Your task to perform on an android device: Add "lenovo thinkpad" to the cart on target Image 0: 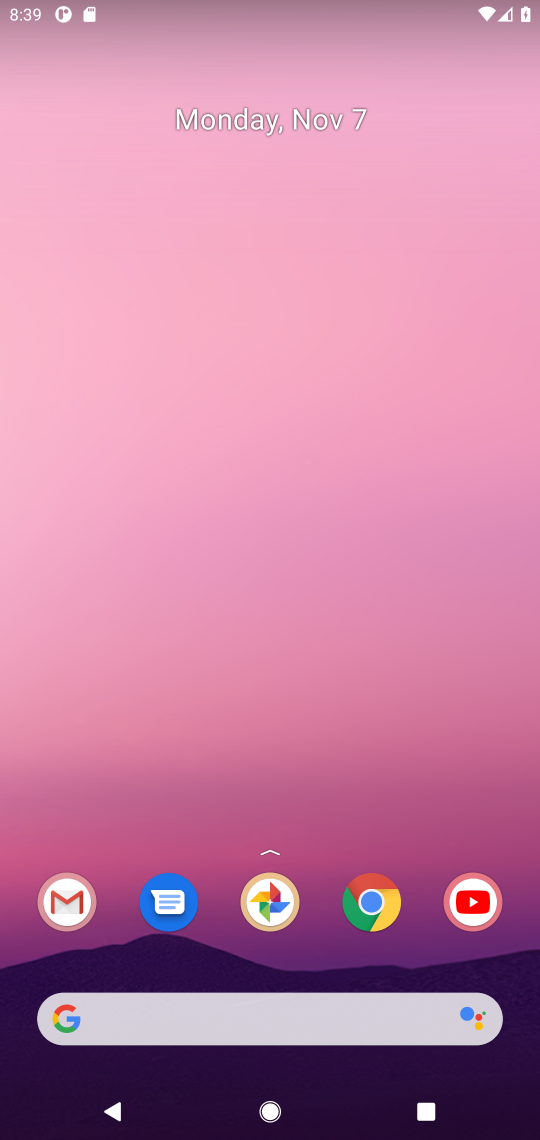
Step 0: click (375, 918)
Your task to perform on an android device: Add "lenovo thinkpad" to the cart on target Image 1: 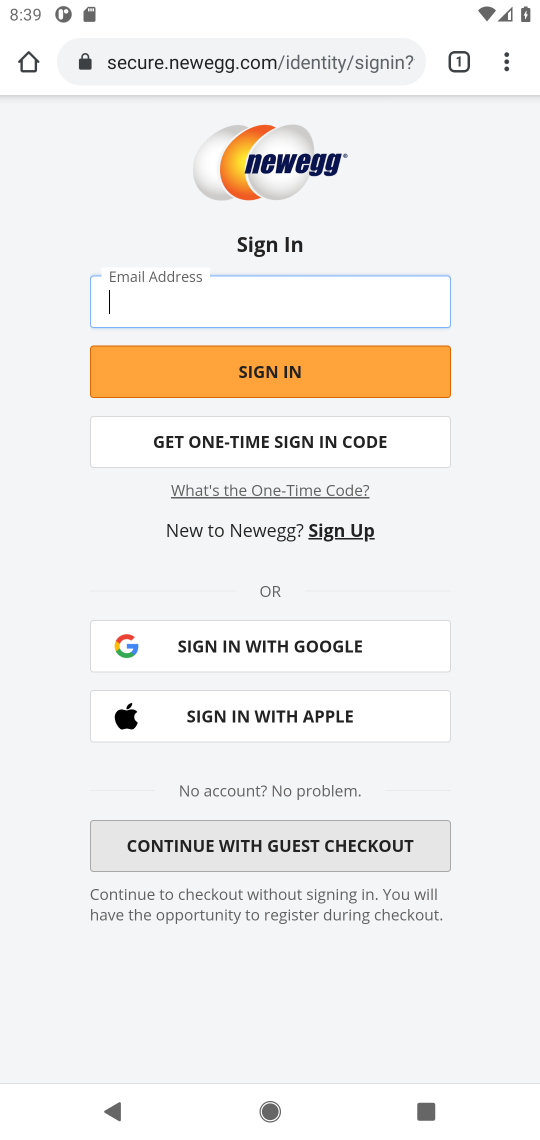
Step 1: click (201, 62)
Your task to perform on an android device: Add "lenovo thinkpad" to the cart on target Image 2: 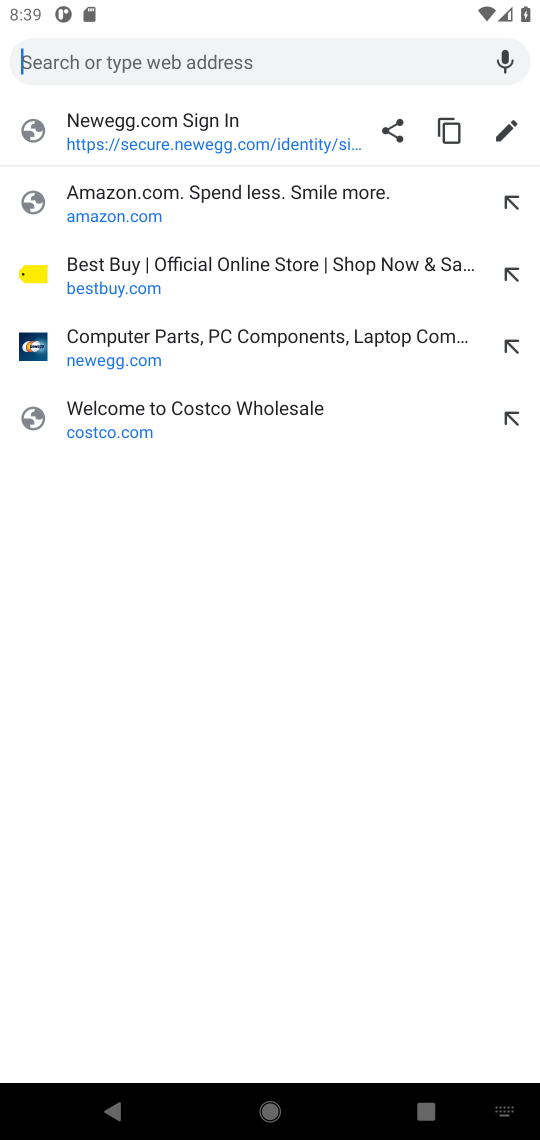
Step 2: type "target.com"
Your task to perform on an android device: Add "lenovo thinkpad" to the cart on target Image 3: 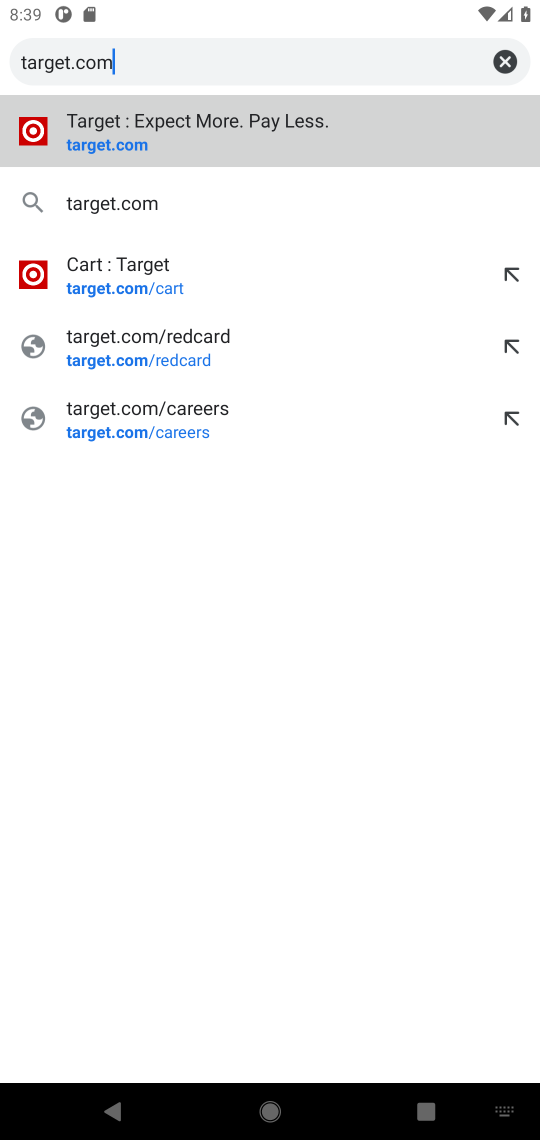
Step 3: click (88, 148)
Your task to perform on an android device: Add "lenovo thinkpad" to the cart on target Image 4: 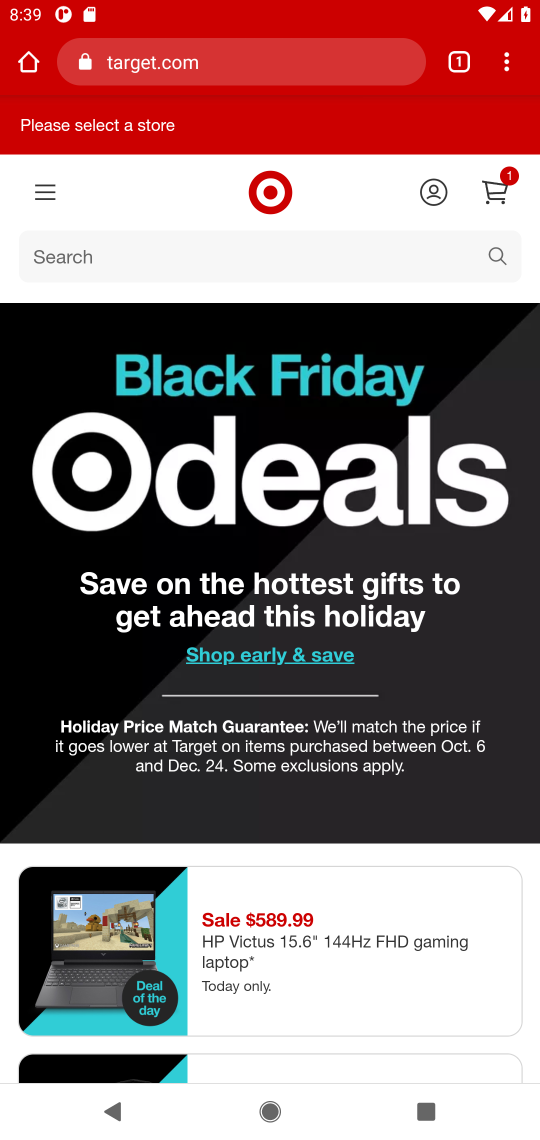
Step 4: click (496, 262)
Your task to perform on an android device: Add "lenovo thinkpad" to the cart on target Image 5: 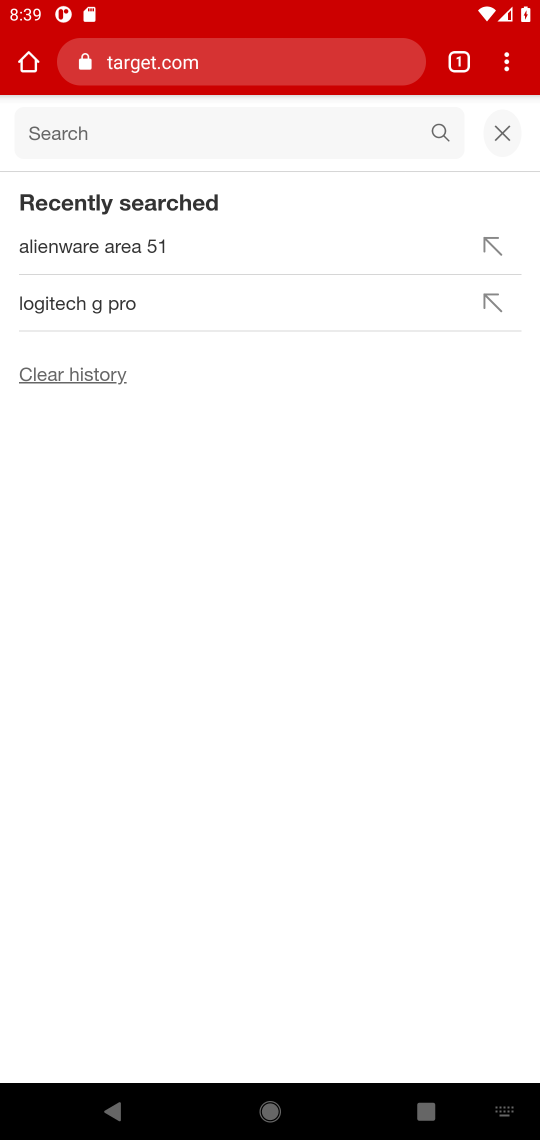
Step 5: type "lenovo thinkpad"
Your task to perform on an android device: Add "lenovo thinkpad" to the cart on target Image 6: 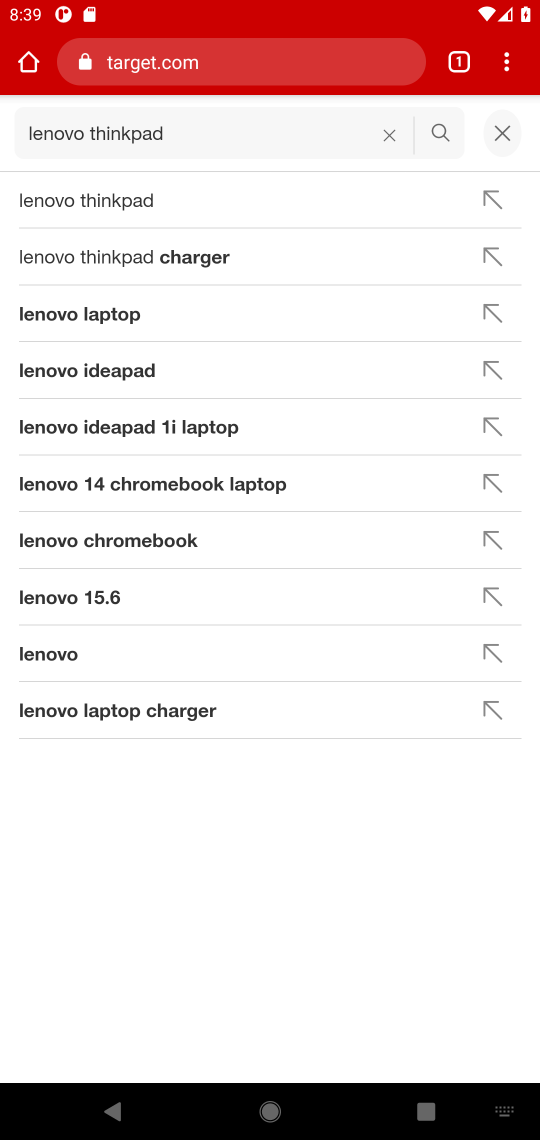
Step 6: click (65, 205)
Your task to perform on an android device: Add "lenovo thinkpad" to the cart on target Image 7: 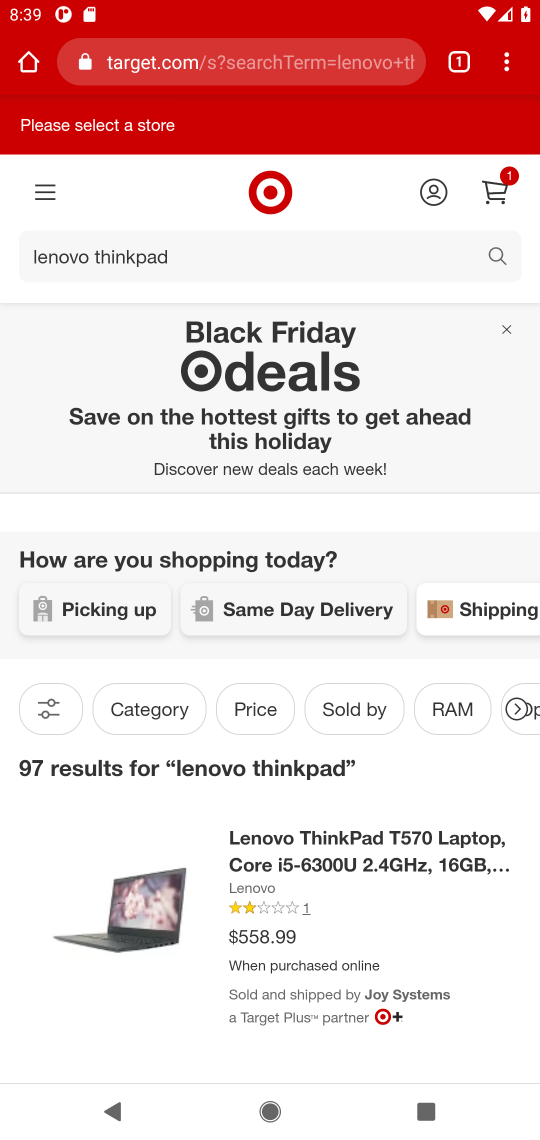
Step 7: click (290, 911)
Your task to perform on an android device: Add "lenovo thinkpad" to the cart on target Image 8: 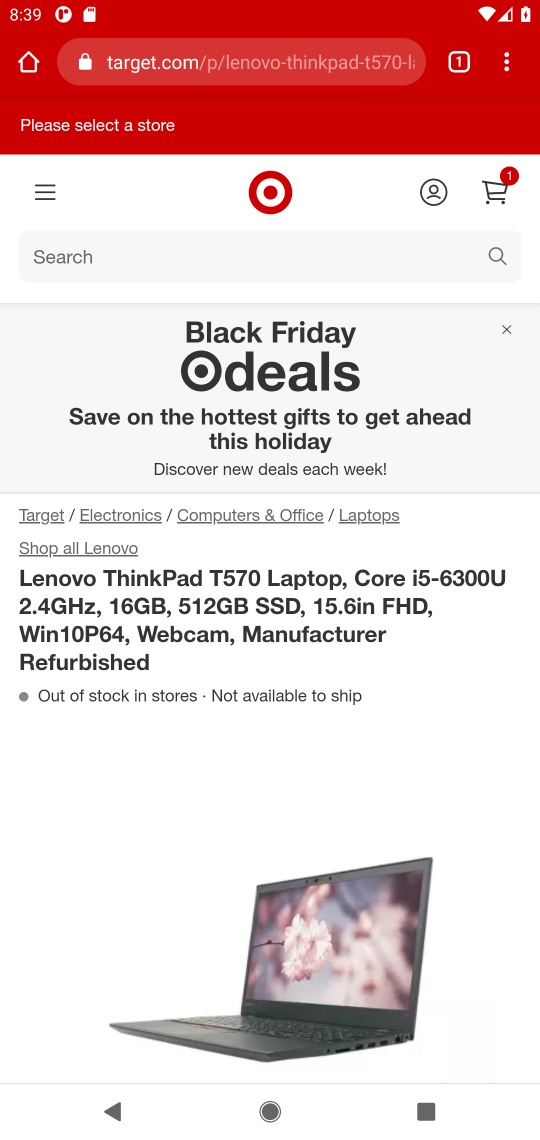
Step 8: drag from (290, 911) to (263, 325)
Your task to perform on an android device: Add "lenovo thinkpad" to the cart on target Image 9: 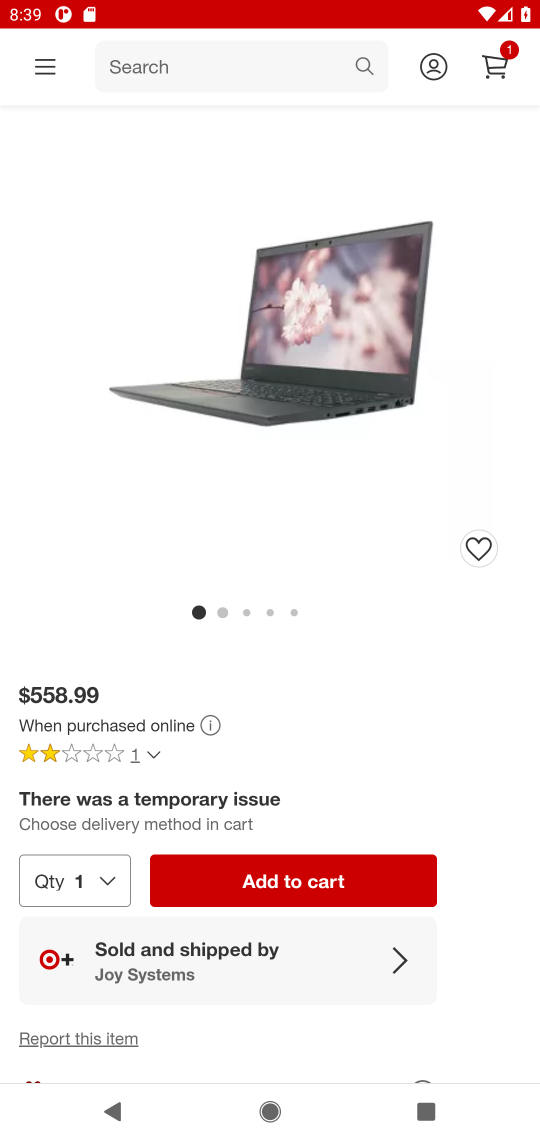
Step 9: click (233, 878)
Your task to perform on an android device: Add "lenovo thinkpad" to the cart on target Image 10: 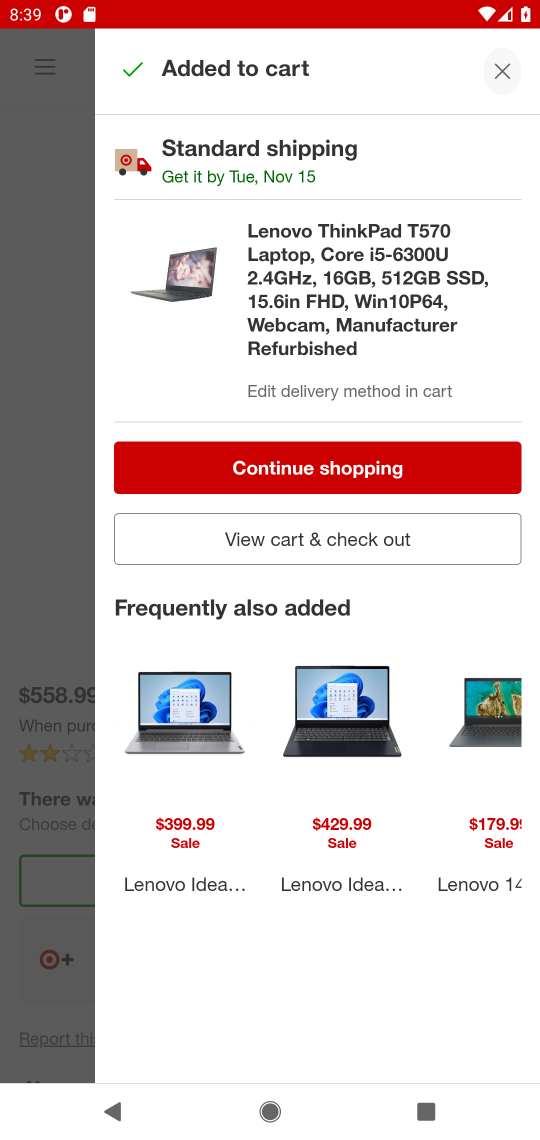
Step 10: task complete